Your task to perform on an android device: Open the stopwatch Image 0: 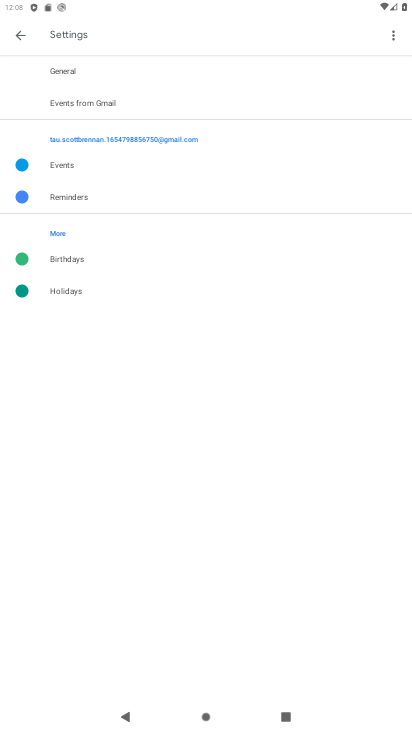
Step 0: click (24, 35)
Your task to perform on an android device: Open the stopwatch Image 1: 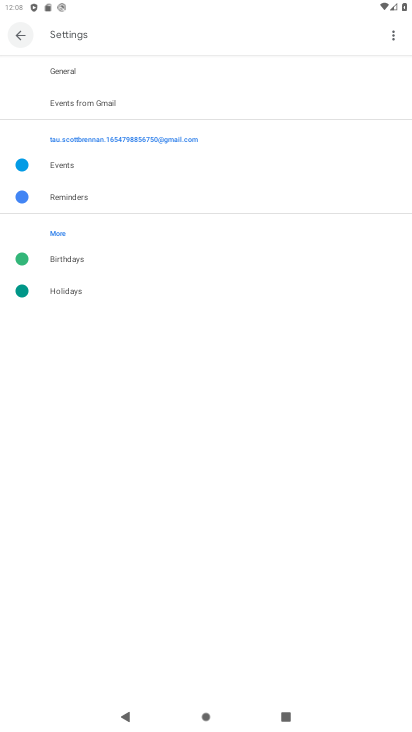
Step 1: click (25, 33)
Your task to perform on an android device: Open the stopwatch Image 2: 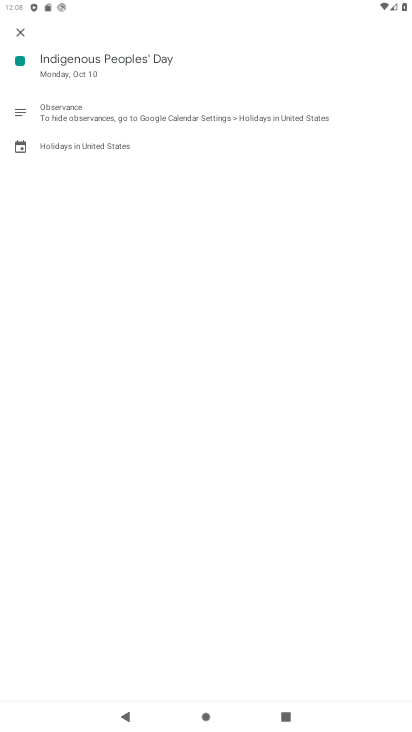
Step 2: click (23, 35)
Your task to perform on an android device: Open the stopwatch Image 3: 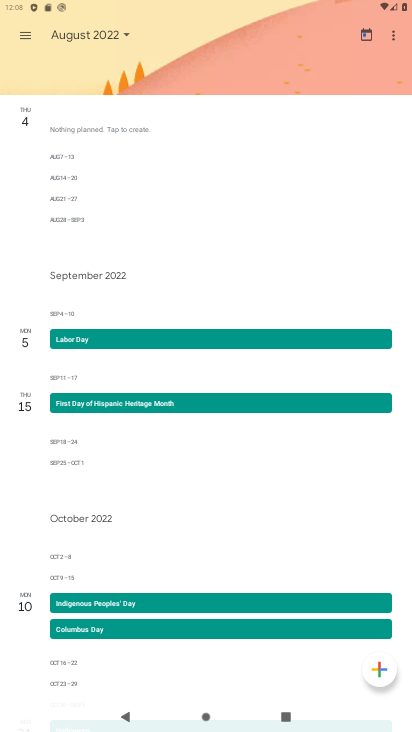
Step 3: click (125, 38)
Your task to perform on an android device: Open the stopwatch Image 4: 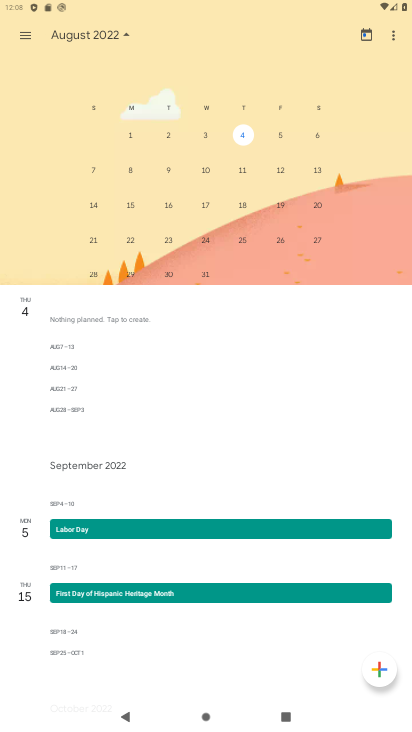
Step 4: drag from (133, 196) to (397, 164)
Your task to perform on an android device: Open the stopwatch Image 5: 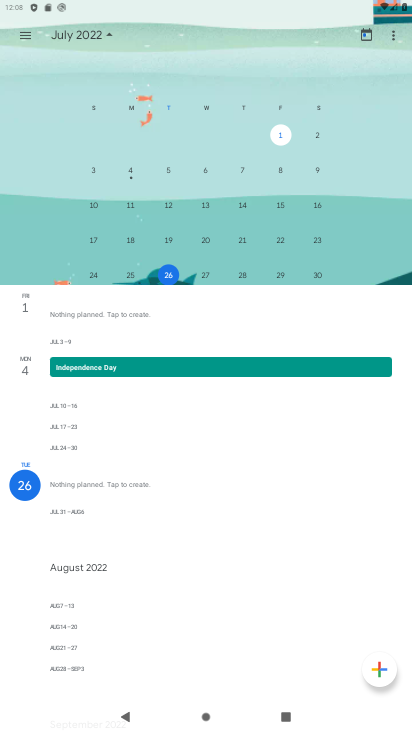
Step 5: press back button
Your task to perform on an android device: Open the stopwatch Image 6: 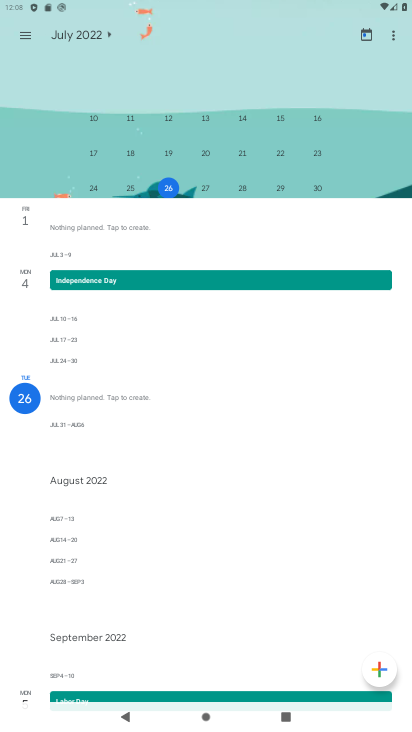
Step 6: press back button
Your task to perform on an android device: Open the stopwatch Image 7: 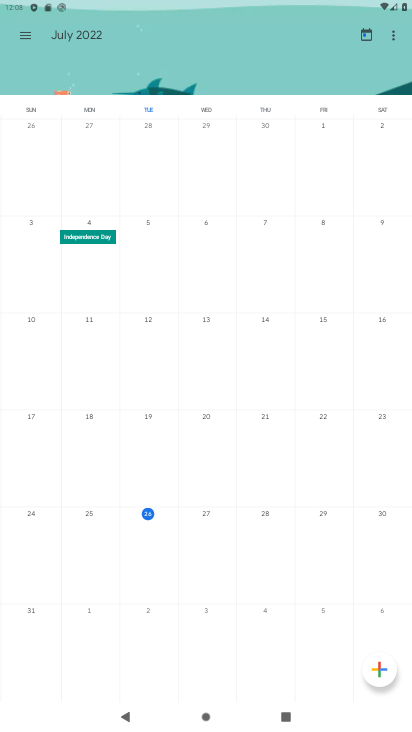
Step 7: press back button
Your task to perform on an android device: Open the stopwatch Image 8: 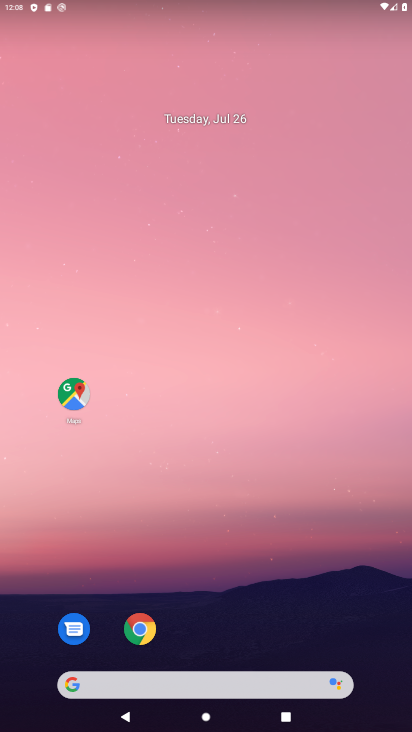
Step 8: drag from (156, 554) to (201, 56)
Your task to perform on an android device: Open the stopwatch Image 9: 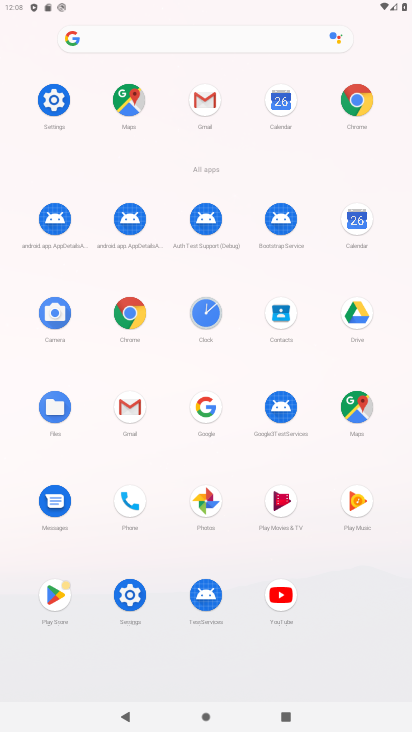
Step 9: click (215, 303)
Your task to perform on an android device: Open the stopwatch Image 10: 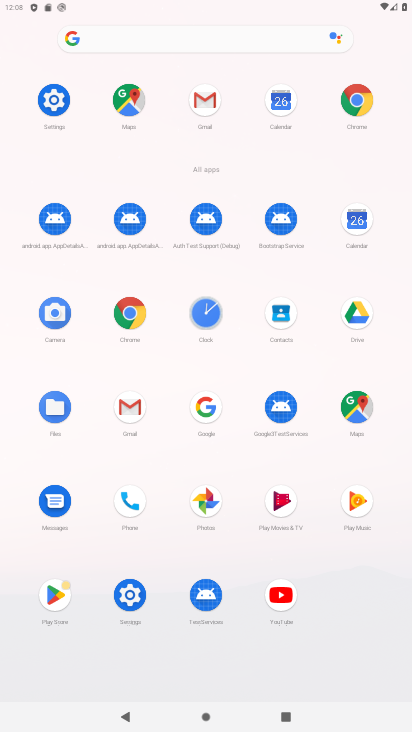
Step 10: click (207, 307)
Your task to perform on an android device: Open the stopwatch Image 11: 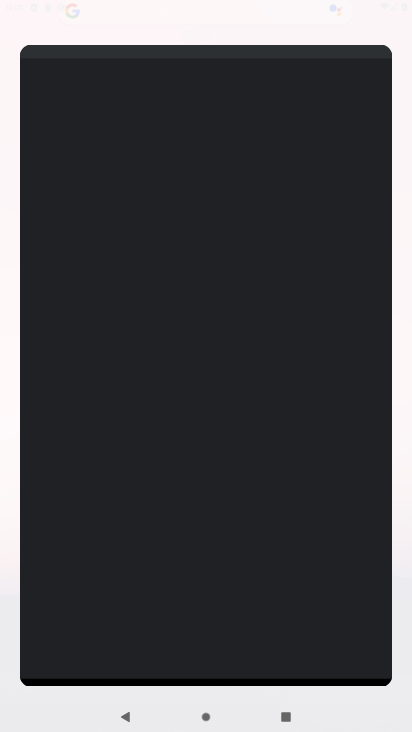
Step 11: click (208, 309)
Your task to perform on an android device: Open the stopwatch Image 12: 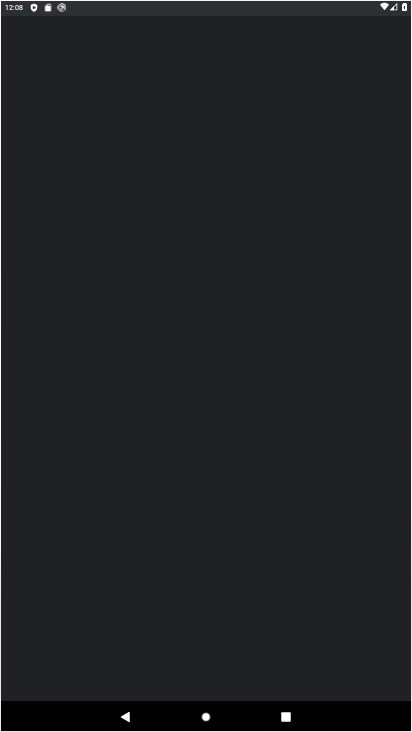
Step 12: click (209, 310)
Your task to perform on an android device: Open the stopwatch Image 13: 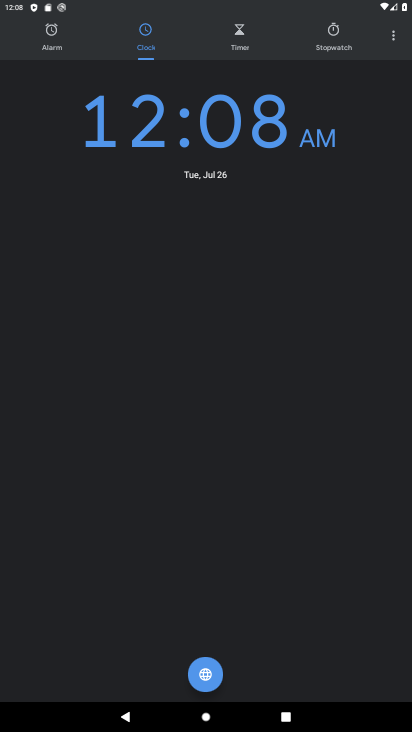
Step 13: click (213, 314)
Your task to perform on an android device: Open the stopwatch Image 14: 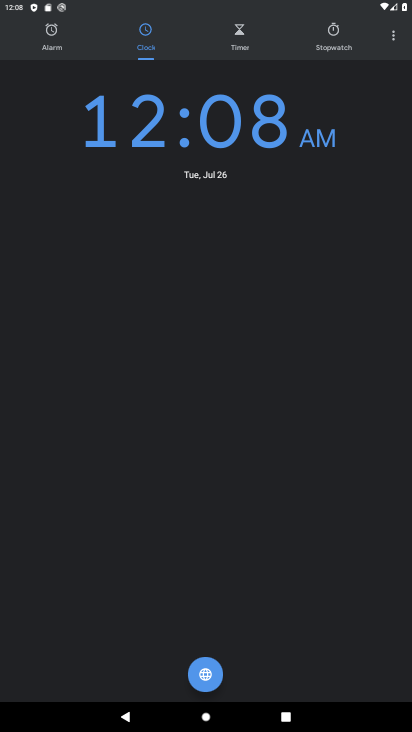
Step 14: click (344, 45)
Your task to perform on an android device: Open the stopwatch Image 15: 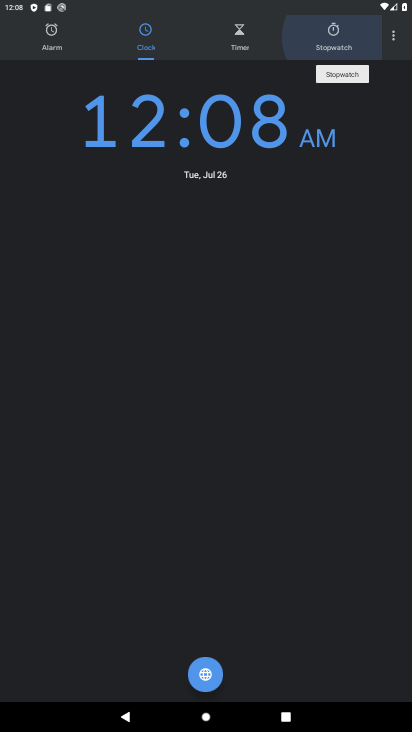
Step 15: click (339, 37)
Your task to perform on an android device: Open the stopwatch Image 16: 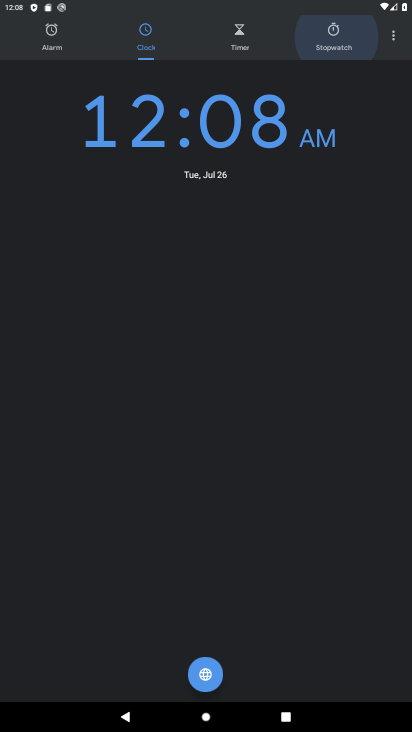
Step 16: click (339, 40)
Your task to perform on an android device: Open the stopwatch Image 17: 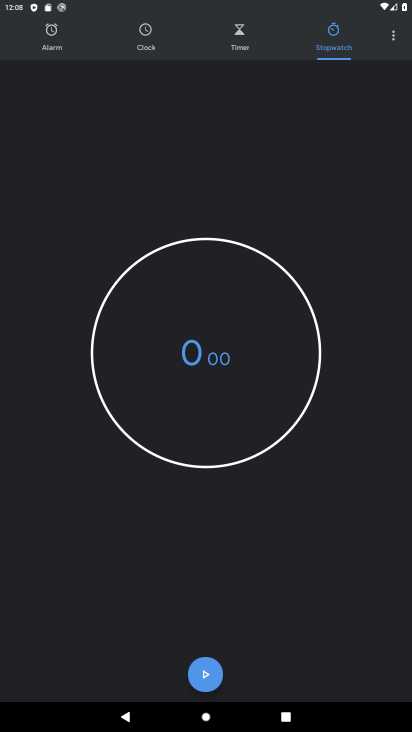
Step 17: click (333, 48)
Your task to perform on an android device: Open the stopwatch Image 18: 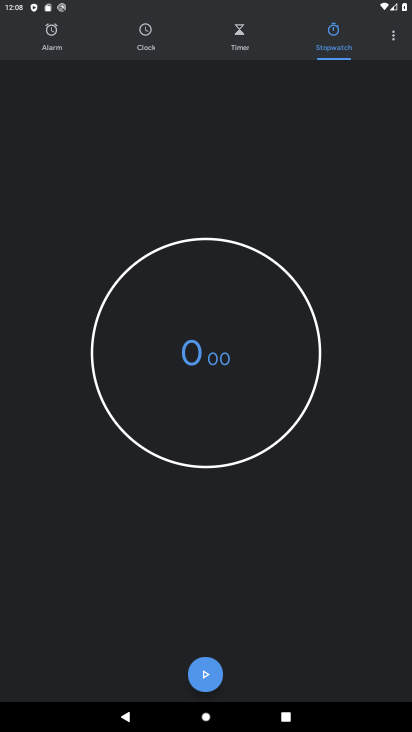
Step 18: click (204, 671)
Your task to perform on an android device: Open the stopwatch Image 19: 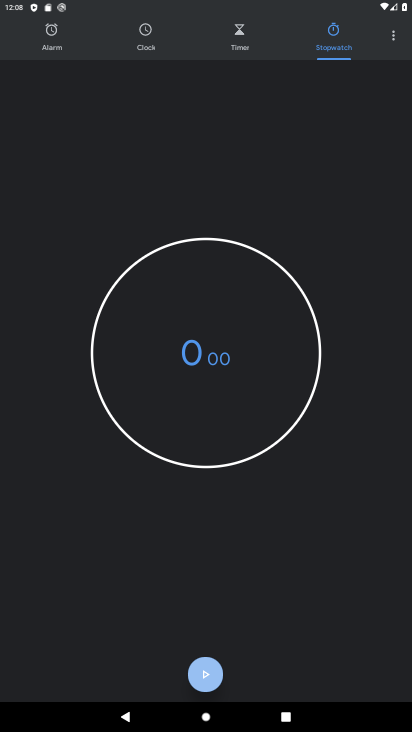
Step 19: click (205, 673)
Your task to perform on an android device: Open the stopwatch Image 20: 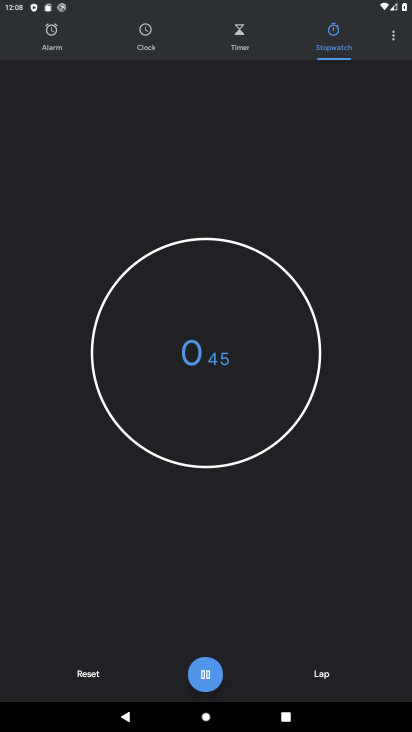
Step 20: click (206, 672)
Your task to perform on an android device: Open the stopwatch Image 21: 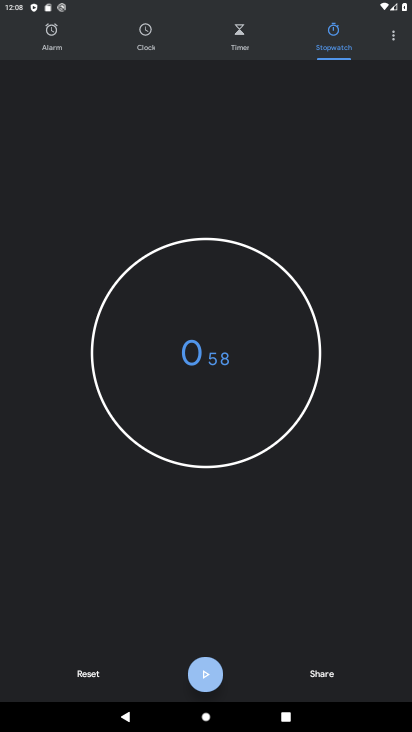
Step 21: click (206, 666)
Your task to perform on an android device: Open the stopwatch Image 22: 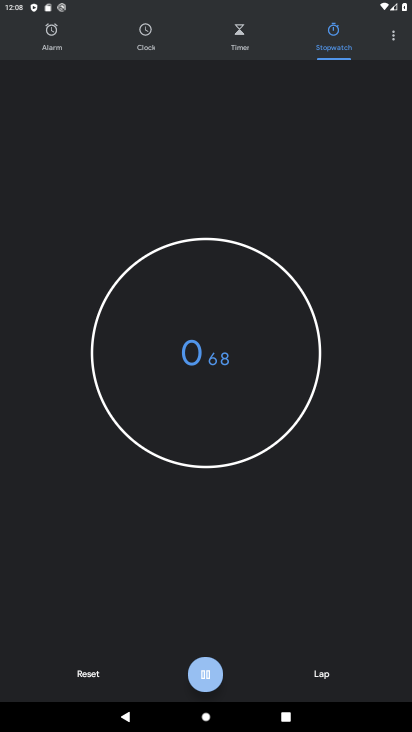
Step 22: click (206, 657)
Your task to perform on an android device: Open the stopwatch Image 23: 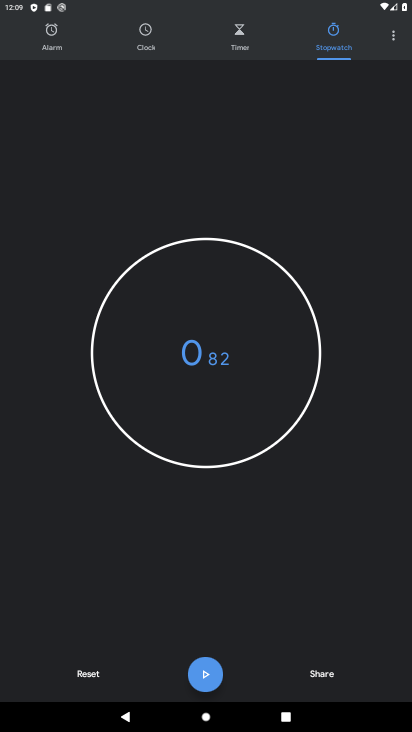
Step 23: click (204, 671)
Your task to perform on an android device: Open the stopwatch Image 24: 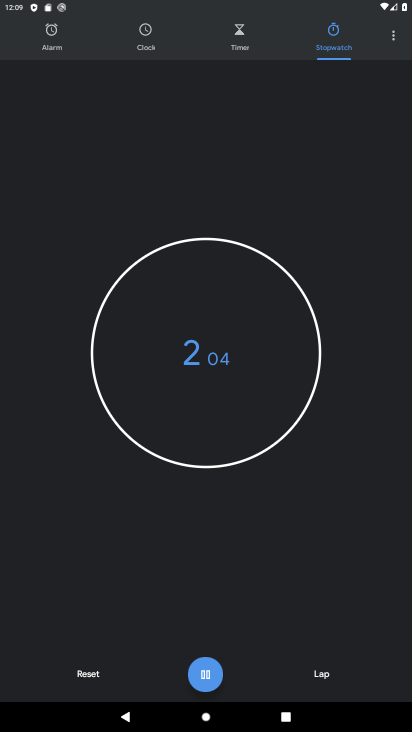
Step 24: click (201, 673)
Your task to perform on an android device: Open the stopwatch Image 25: 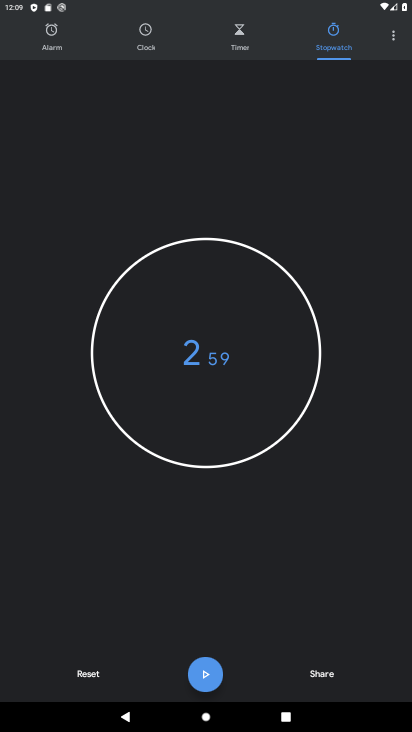
Step 25: click (199, 666)
Your task to perform on an android device: Open the stopwatch Image 26: 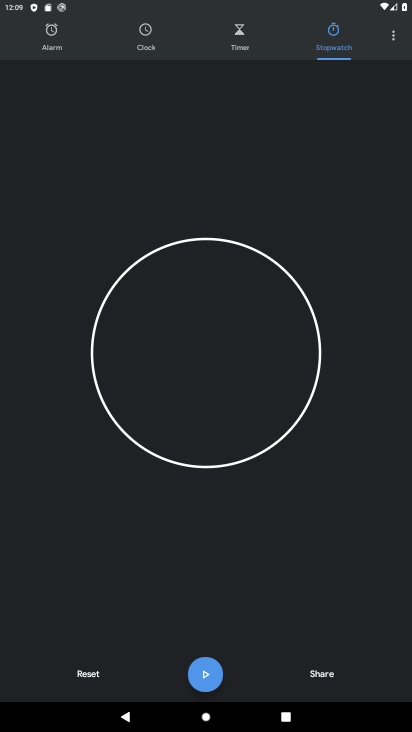
Step 26: click (199, 666)
Your task to perform on an android device: Open the stopwatch Image 27: 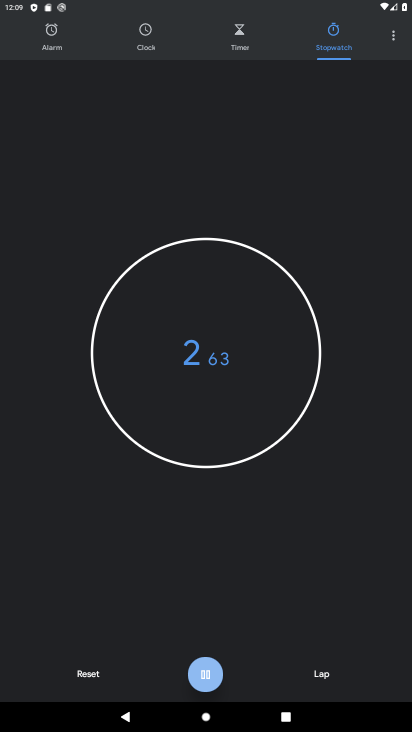
Step 27: click (201, 665)
Your task to perform on an android device: Open the stopwatch Image 28: 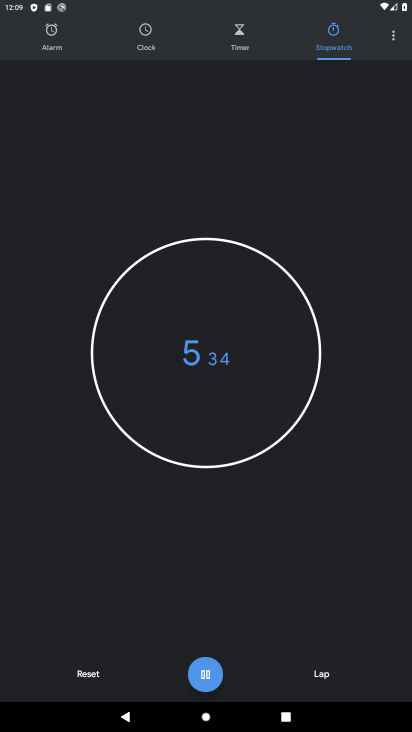
Step 28: click (206, 682)
Your task to perform on an android device: Open the stopwatch Image 29: 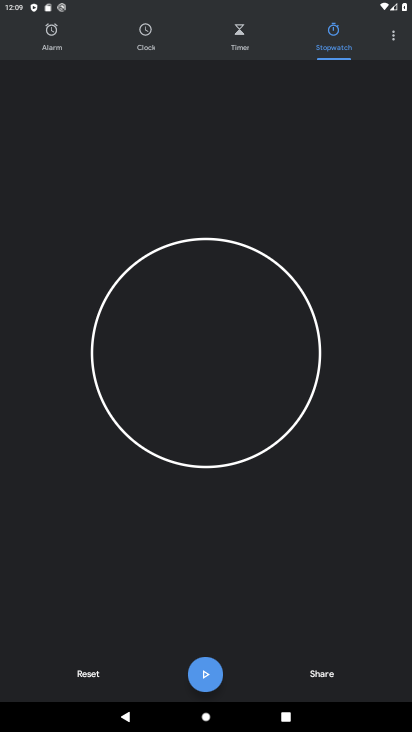
Step 29: click (204, 673)
Your task to perform on an android device: Open the stopwatch Image 30: 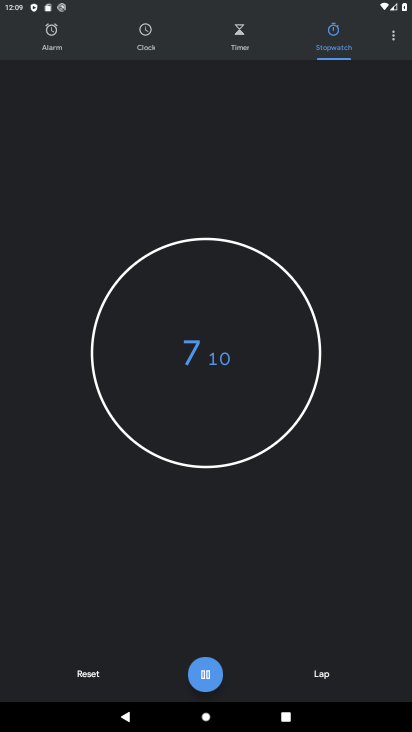
Step 30: click (203, 673)
Your task to perform on an android device: Open the stopwatch Image 31: 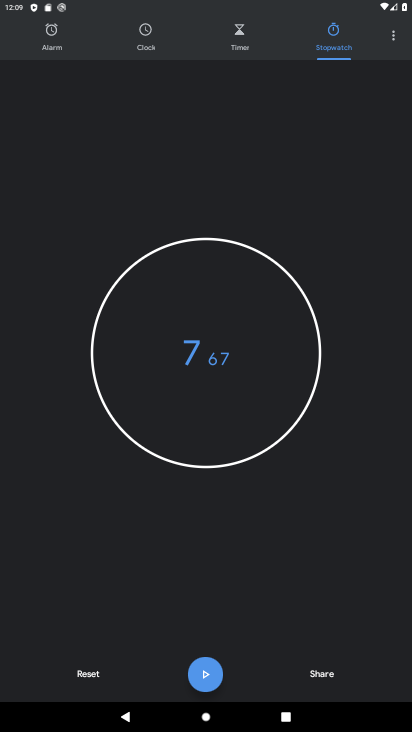
Step 31: task complete